Your task to perform on an android device: Open display settings Image 0: 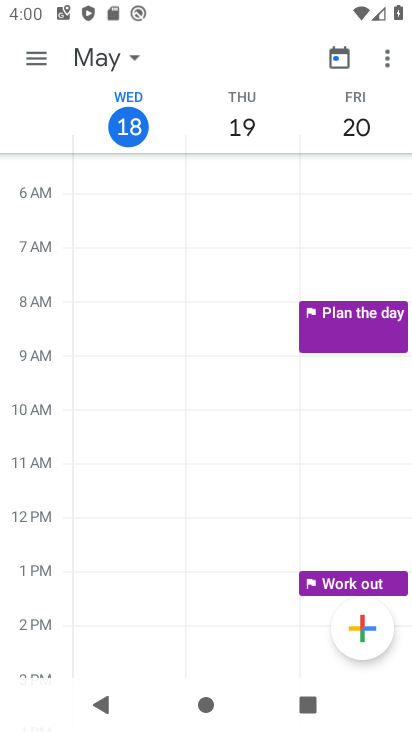
Step 0: press home button
Your task to perform on an android device: Open display settings Image 1: 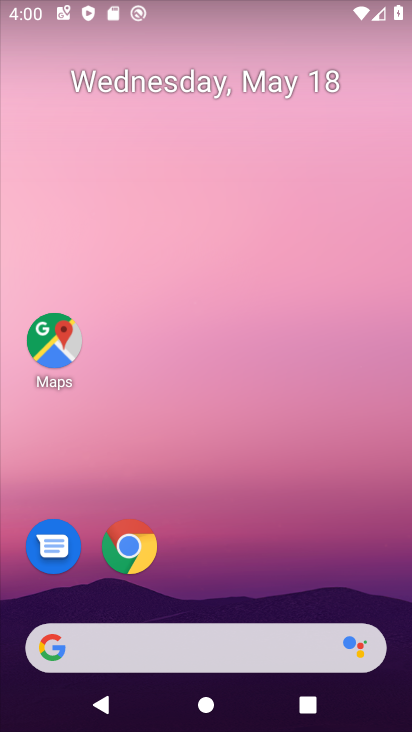
Step 1: drag from (221, 602) to (287, 102)
Your task to perform on an android device: Open display settings Image 2: 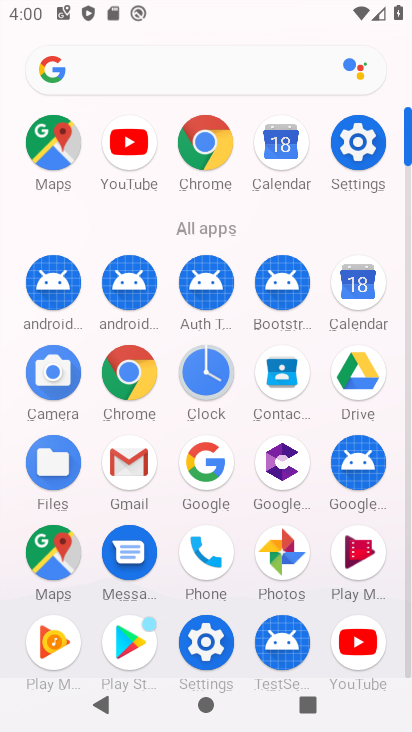
Step 2: click (358, 172)
Your task to perform on an android device: Open display settings Image 3: 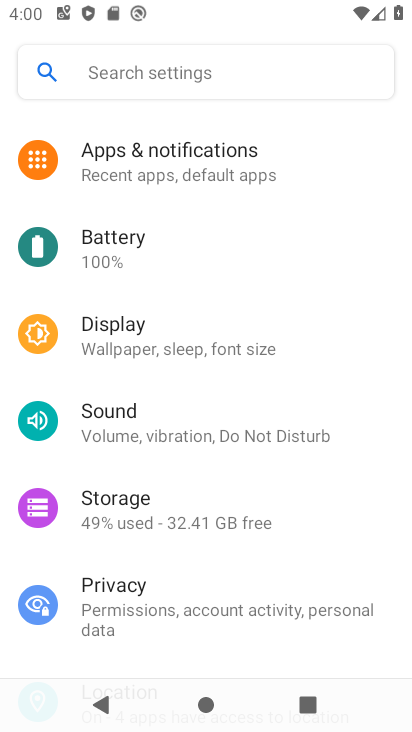
Step 3: click (142, 349)
Your task to perform on an android device: Open display settings Image 4: 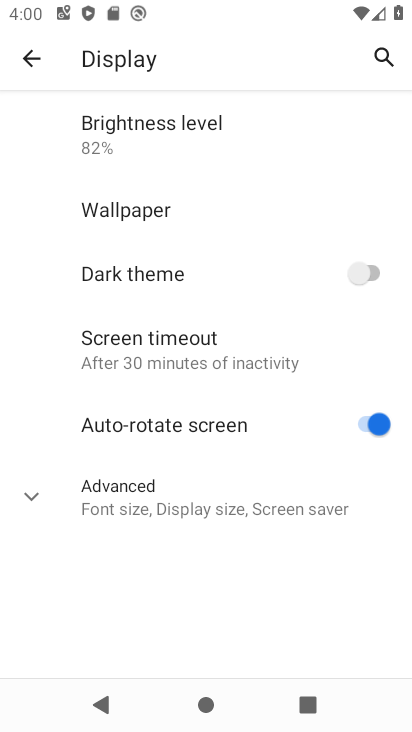
Step 4: task complete